Your task to perform on an android device: Open the Play Movies app and select the watchlist tab. Image 0: 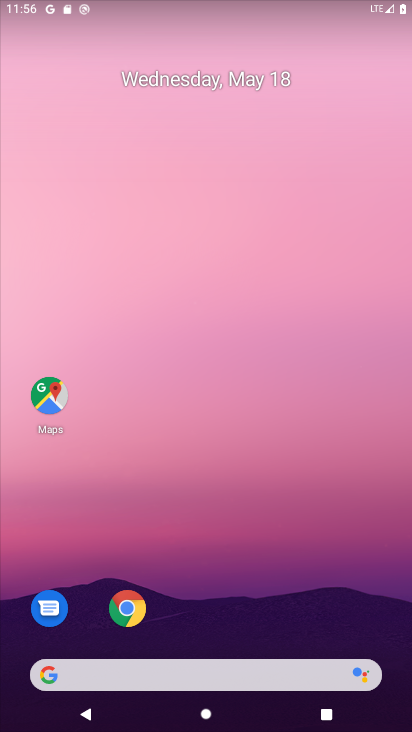
Step 0: drag from (223, 528) to (241, 88)
Your task to perform on an android device: Open the Play Movies app and select the watchlist tab. Image 1: 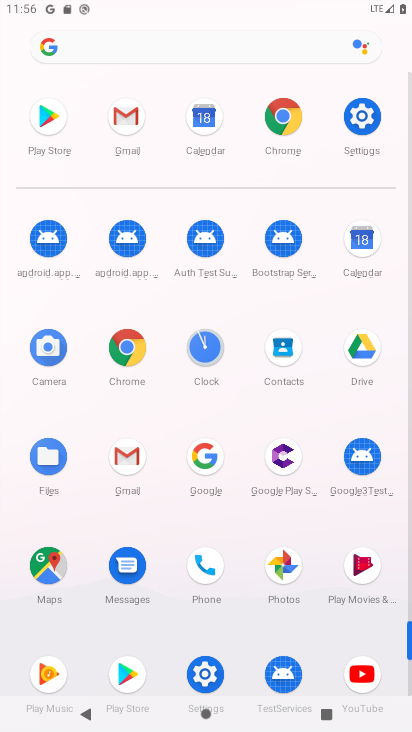
Step 1: click (374, 563)
Your task to perform on an android device: Open the Play Movies app and select the watchlist tab. Image 2: 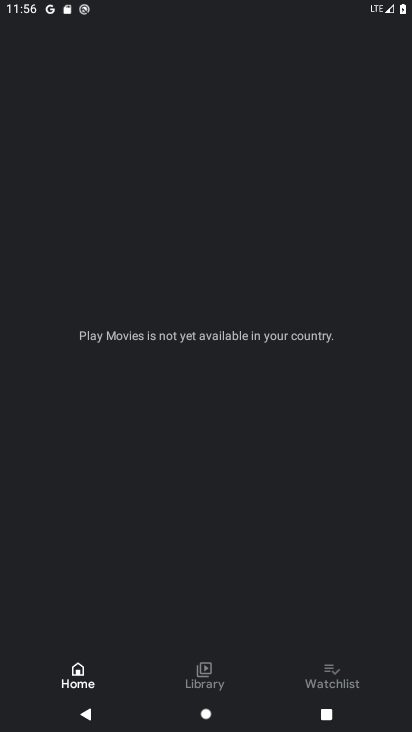
Step 2: click (341, 683)
Your task to perform on an android device: Open the Play Movies app and select the watchlist tab. Image 3: 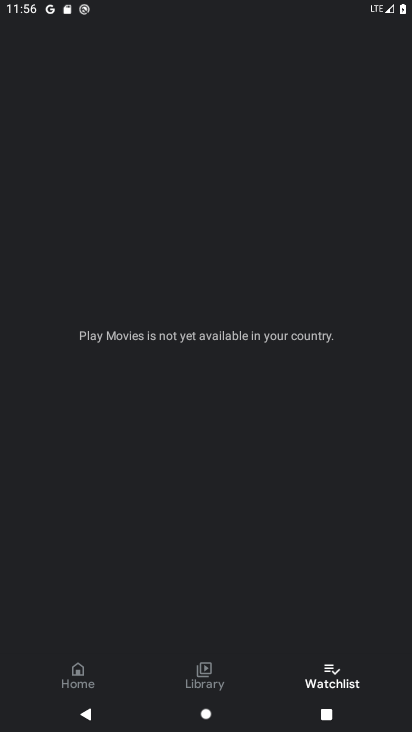
Step 3: task complete